Your task to perform on an android device: check data usage Image 0: 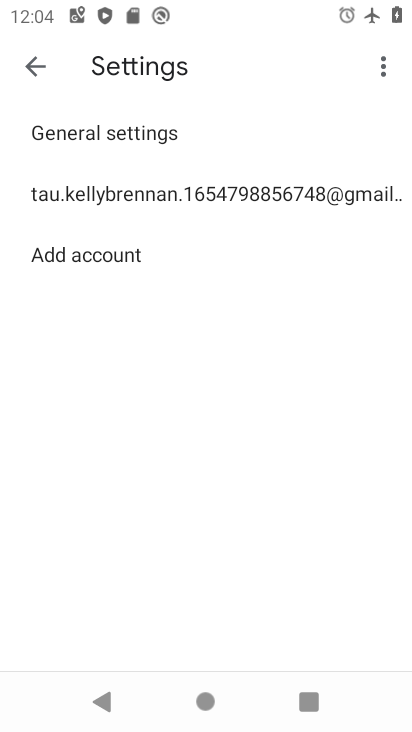
Step 0: press home button
Your task to perform on an android device: check data usage Image 1: 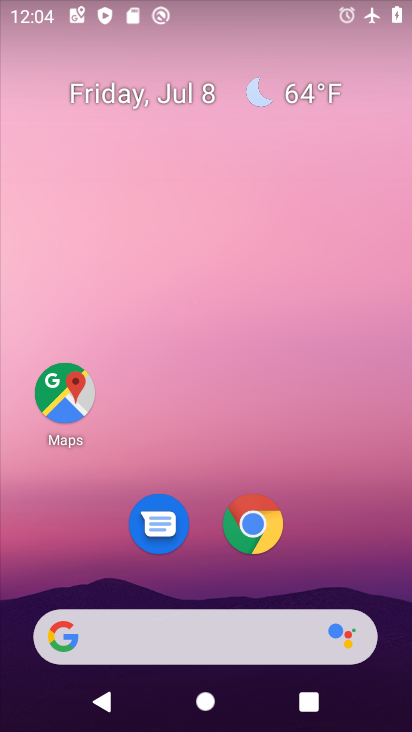
Step 1: drag from (313, 542) to (329, 34)
Your task to perform on an android device: check data usage Image 2: 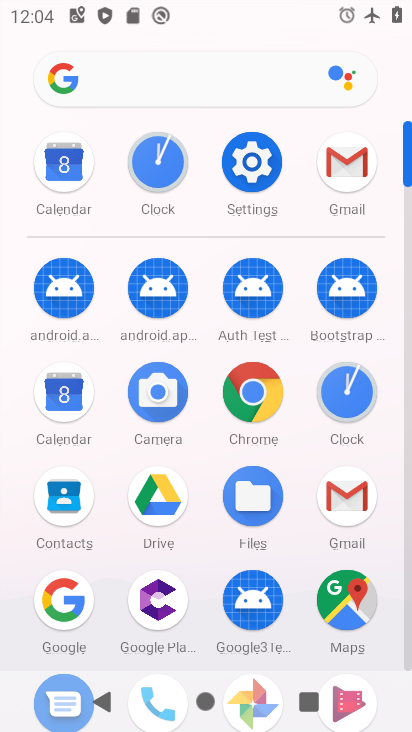
Step 2: click (261, 159)
Your task to perform on an android device: check data usage Image 3: 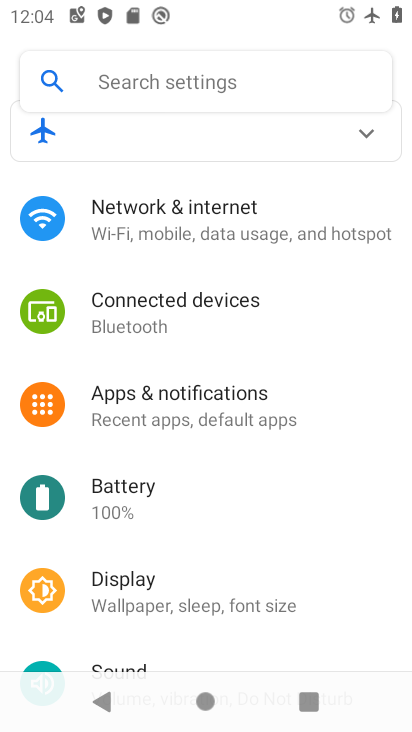
Step 3: click (239, 218)
Your task to perform on an android device: check data usage Image 4: 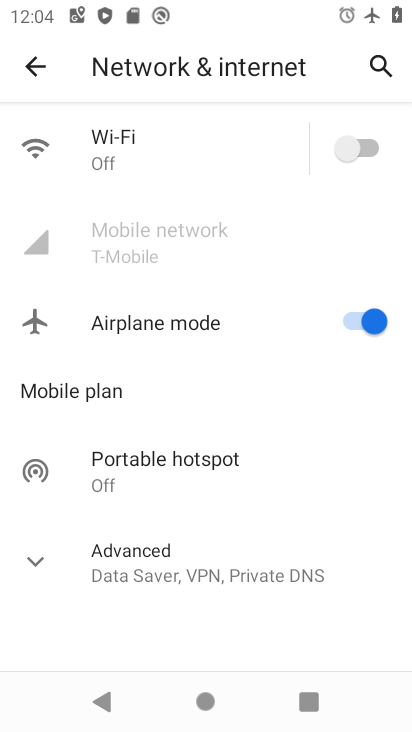
Step 4: click (348, 320)
Your task to perform on an android device: check data usage Image 5: 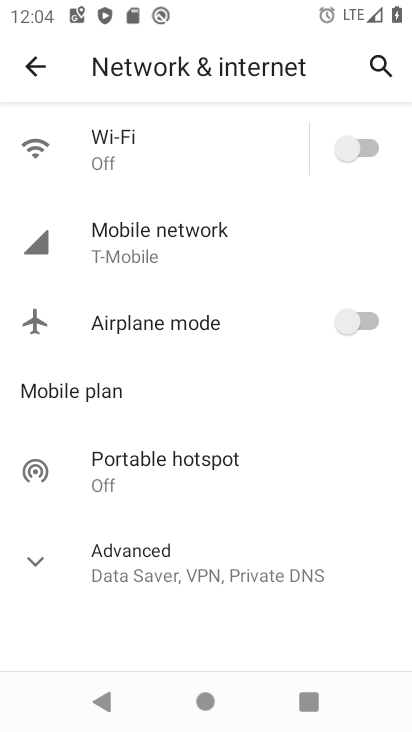
Step 5: click (231, 231)
Your task to perform on an android device: check data usage Image 6: 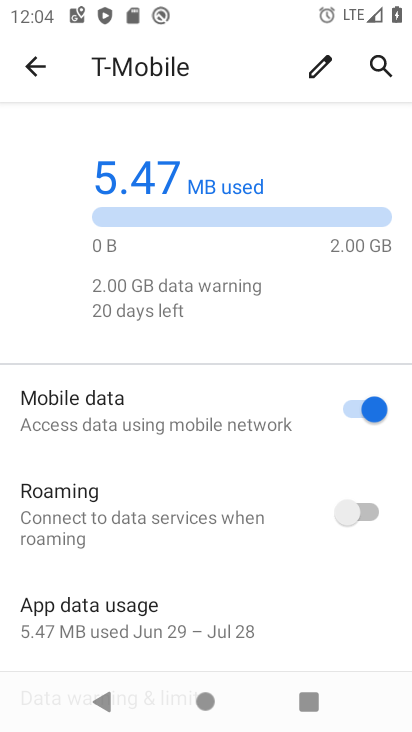
Step 6: task complete